Your task to perform on an android device: Go to CNN.com Image 0: 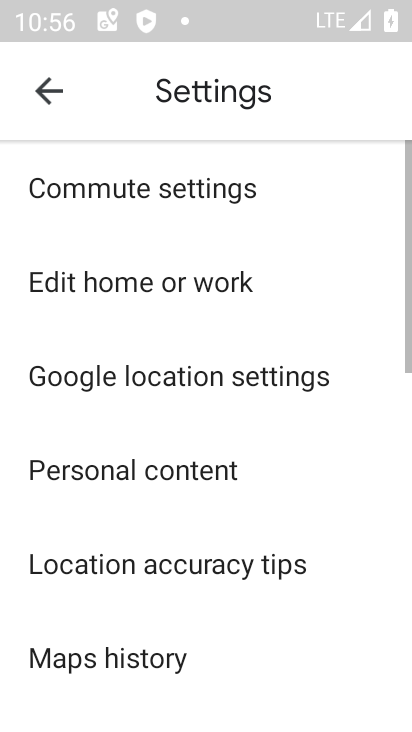
Step 0: press home button
Your task to perform on an android device: Go to CNN.com Image 1: 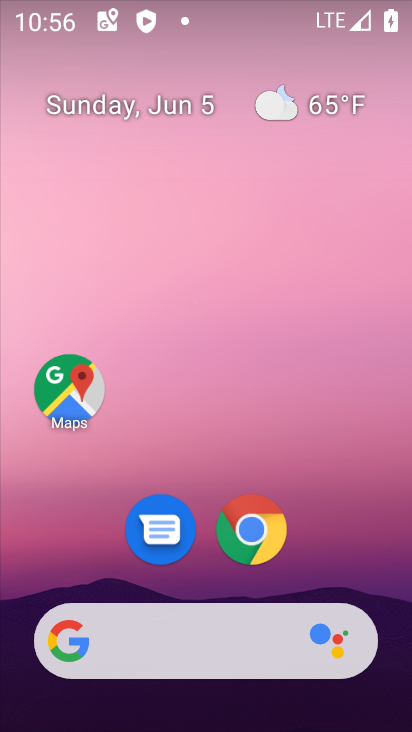
Step 1: click (263, 638)
Your task to perform on an android device: Go to CNN.com Image 2: 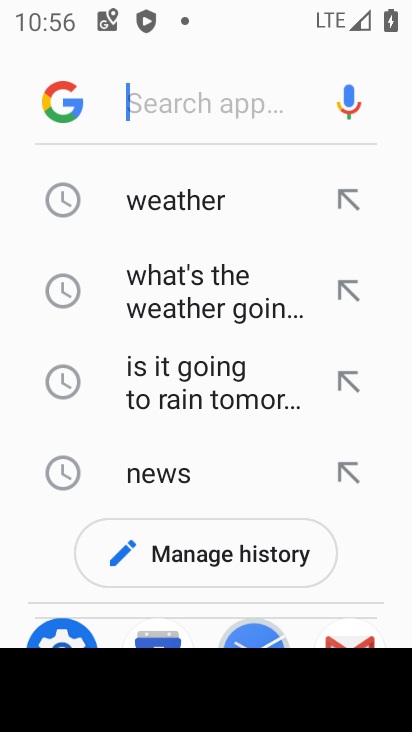
Step 2: type "cnn.com"
Your task to perform on an android device: Go to CNN.com Image 3: 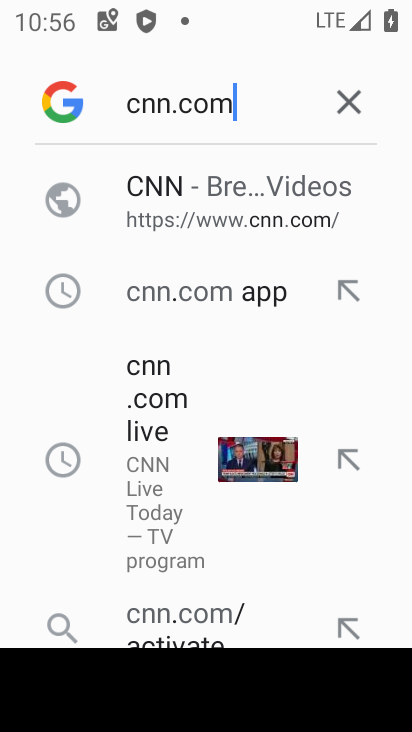
Step 3: click (274, 214)
Your task to perform on an android device: Go to CNN.com Image 4: 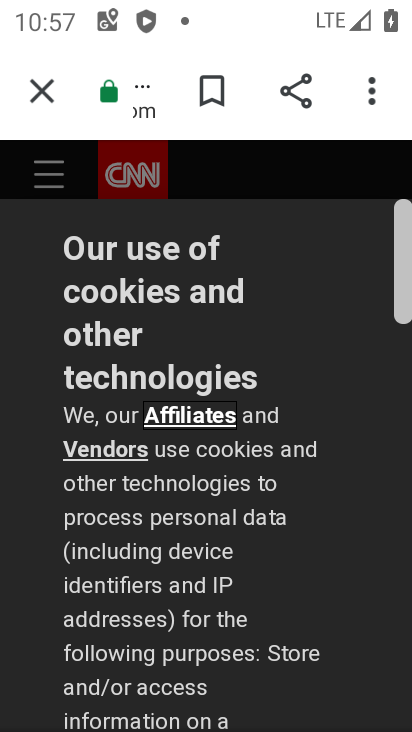
Step 4: task complete